Your task to perform on an android device: Show the shopping cart on newegg. Add razer nari to the cart on newegg, then select checkout. Image 0: 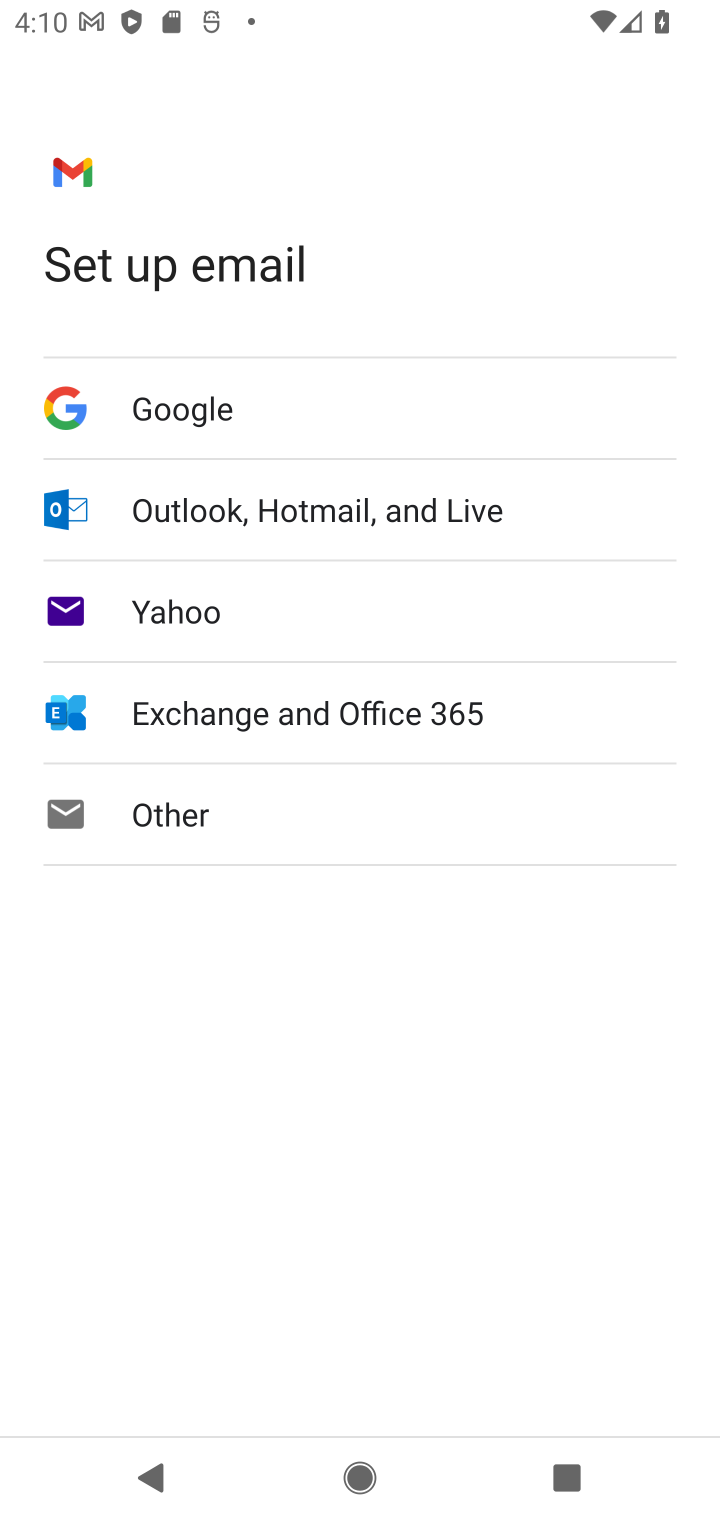
Step 0: press home button
Your task to perform on an android device: Show the shopping cart on newegg. Add razer nari to the cart on newegg, then select checkout. Image 1: 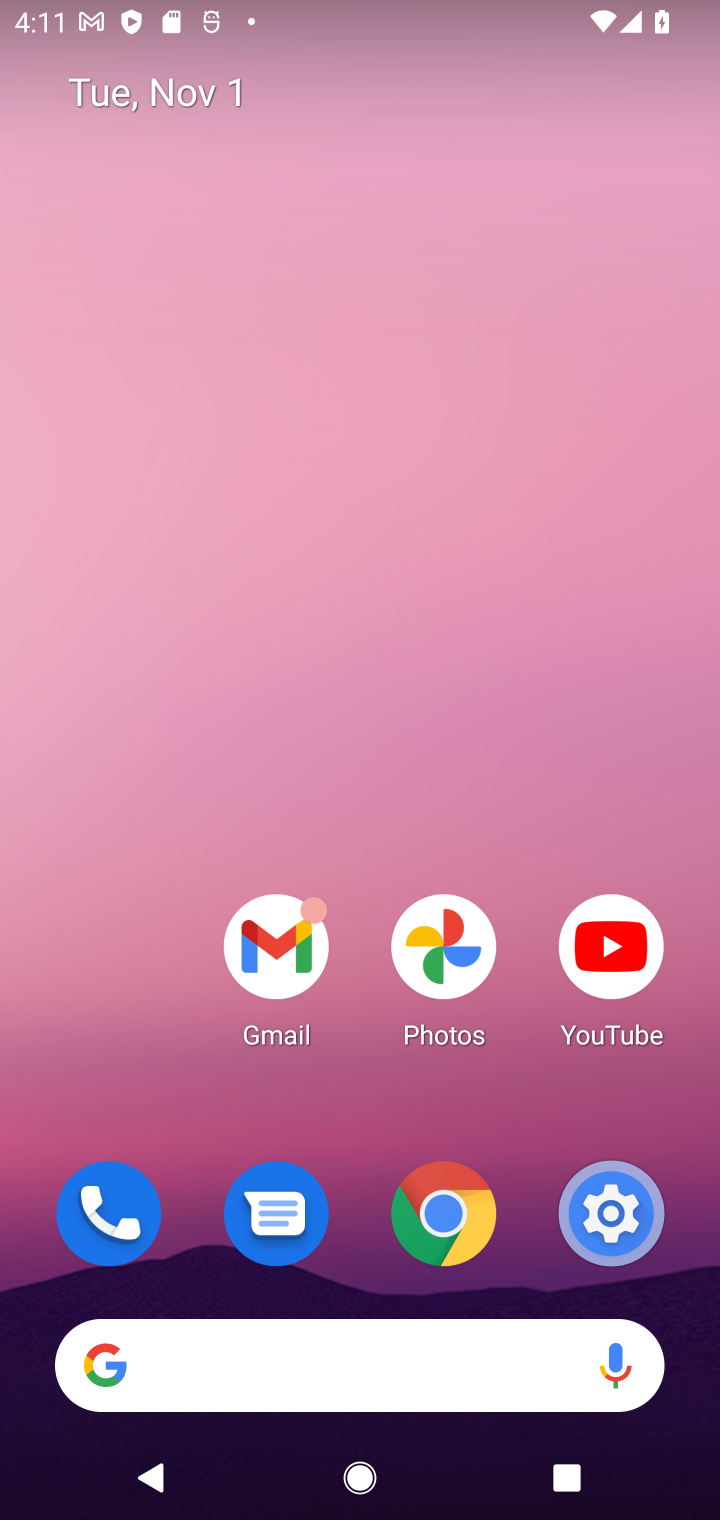
Step 1: click (343, 1361)
Your task to perform on an android device: Show the shopping cart on newegg. Add razer nari to the cart on newegg, then select checkout. Image 2: 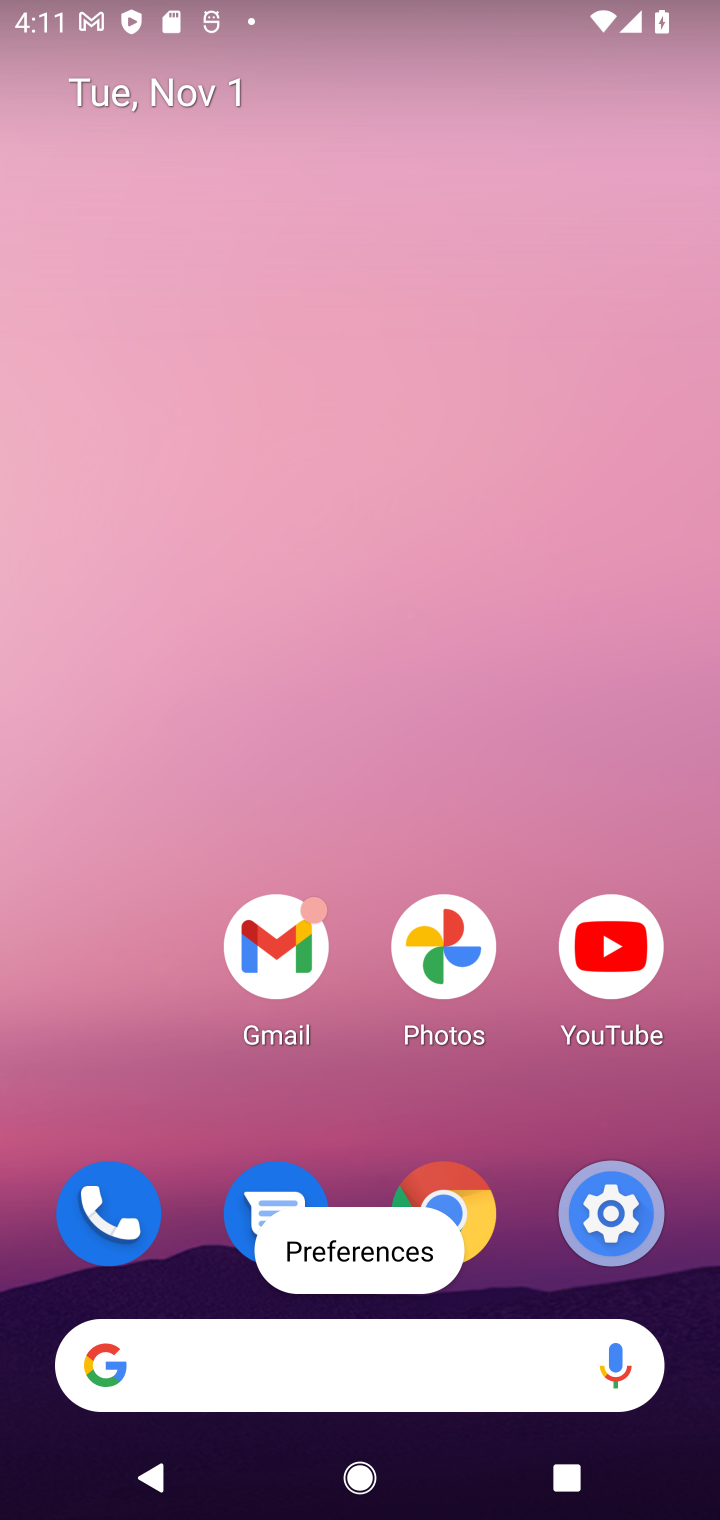
Step 2: type "newegg"
Your task to perform on an android device: Show the shopping cart on newegg. Add razer nari to the cart on newegg, then select checkout. Image 3: 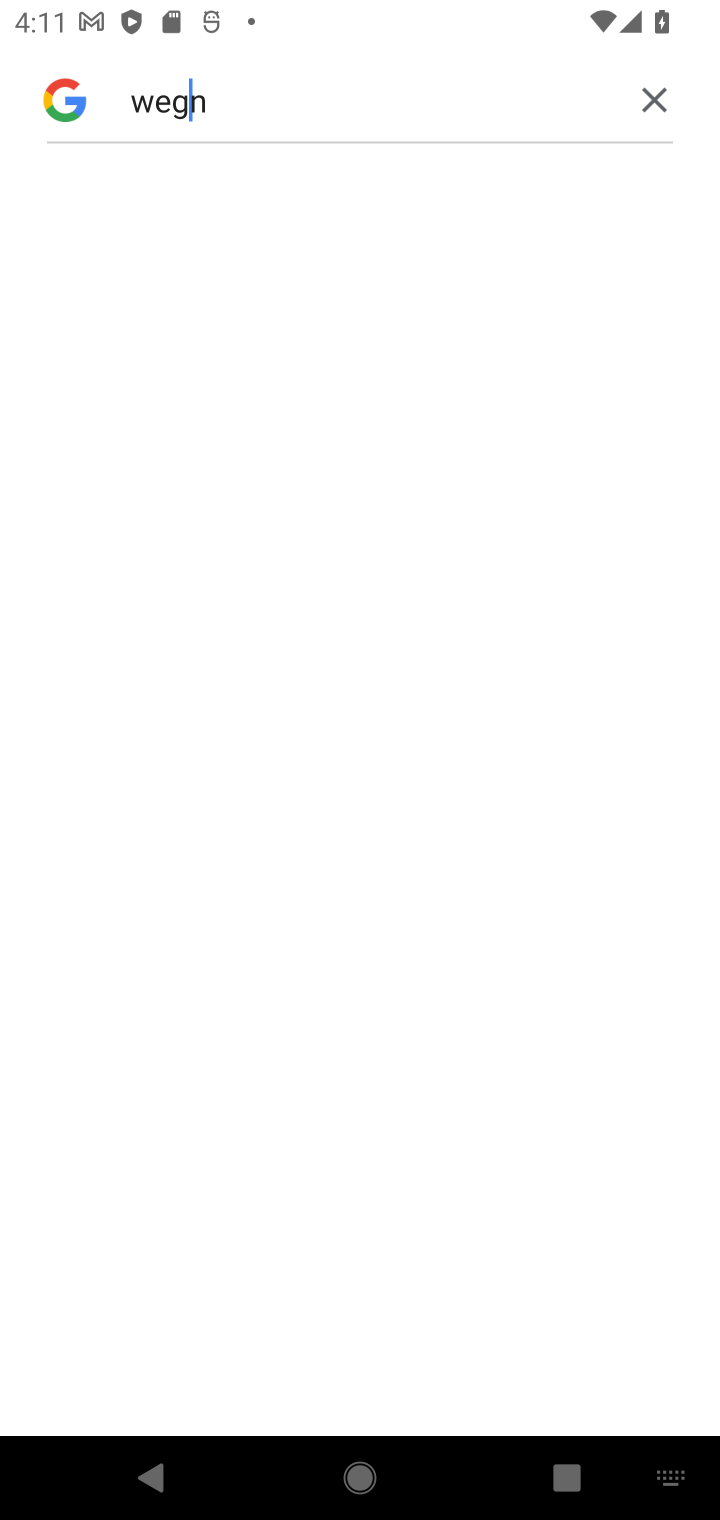
Step 3: type ""
Your task to perform on an android device: Show the shopping cart on newegg. Add razer nari to the cart on newegg, then select checkout. Image 4: 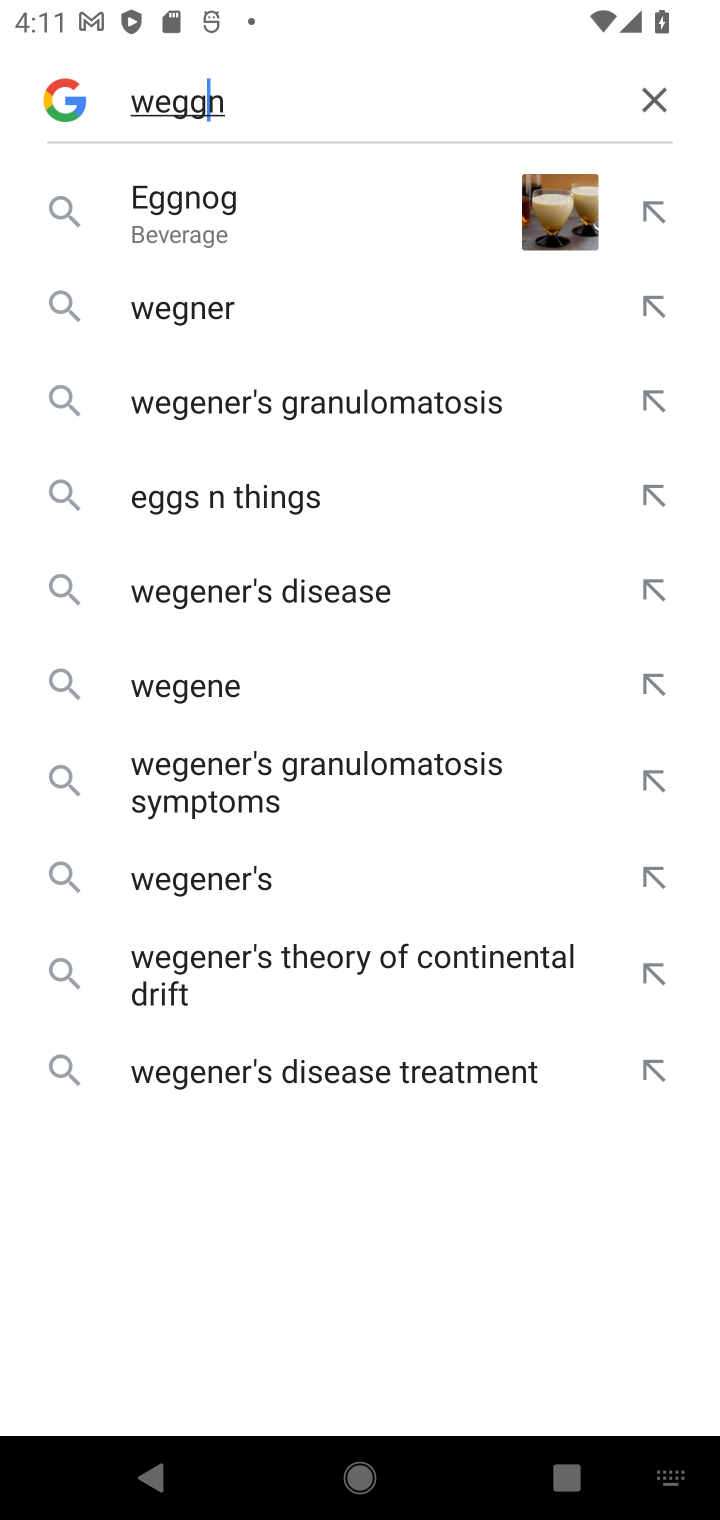
Step 4: click (659, 114)
Your task to perform on an android device: Show the shopping cart on newegg. Add razer nari to the cart on newegg, then select checkout. Image 5: 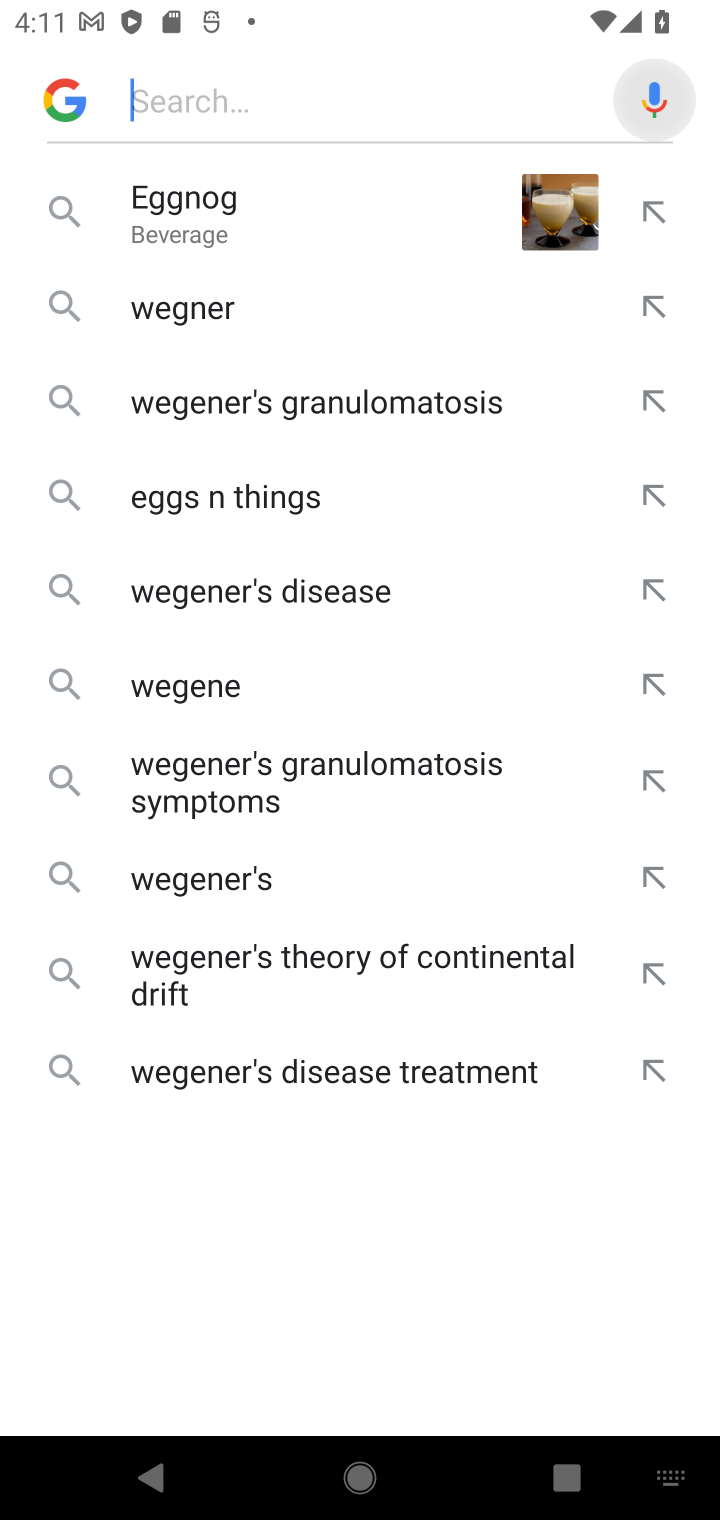
Step 5: click (657, 105)
Your task to perform on an android device: Show the shopping cart on newegg. Add razer nari to the cart on newegg, then select checkout. Image 6: 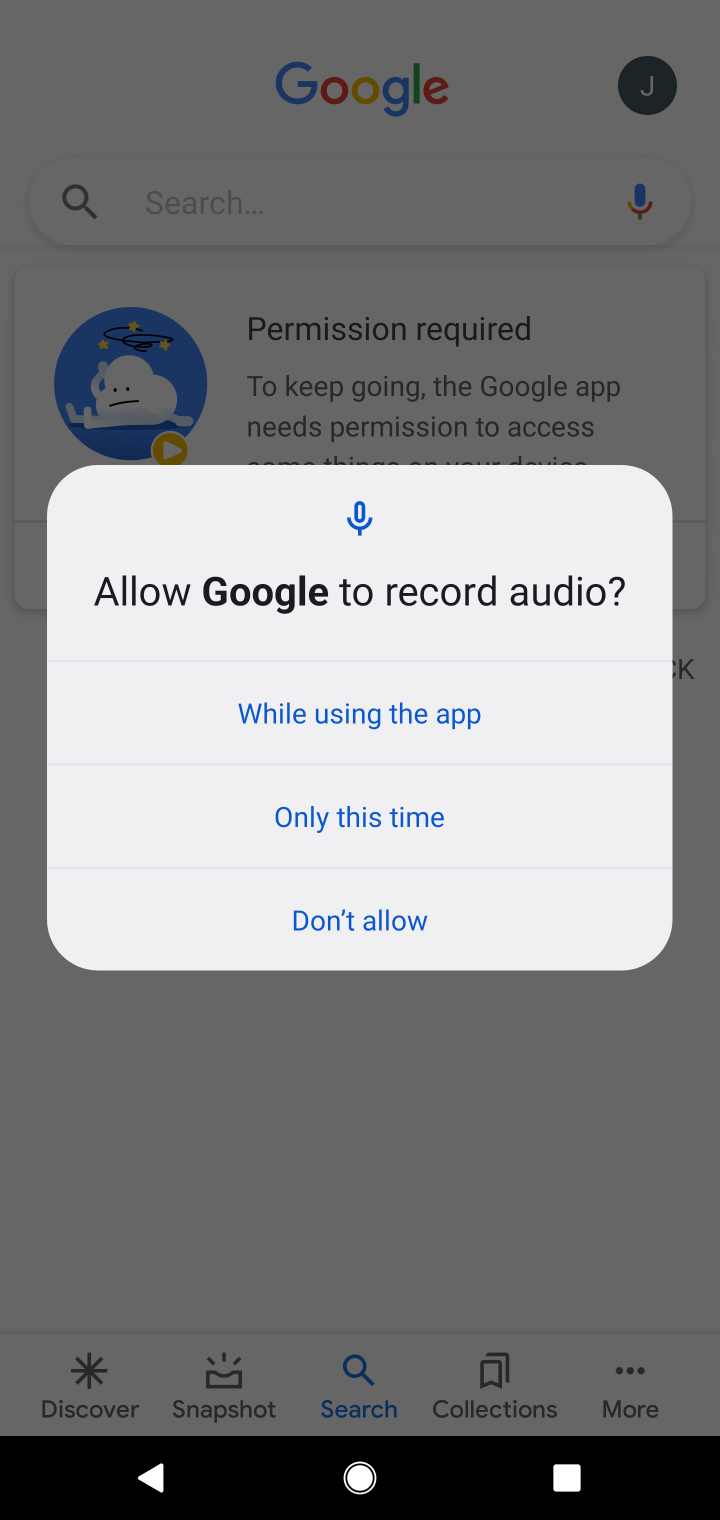
Step 6: click (435, 926)
Your task to perform on an android device: Show the shopping cart on newegg. Add razer nari to the cart on newegg, then select checkout. Image 7: 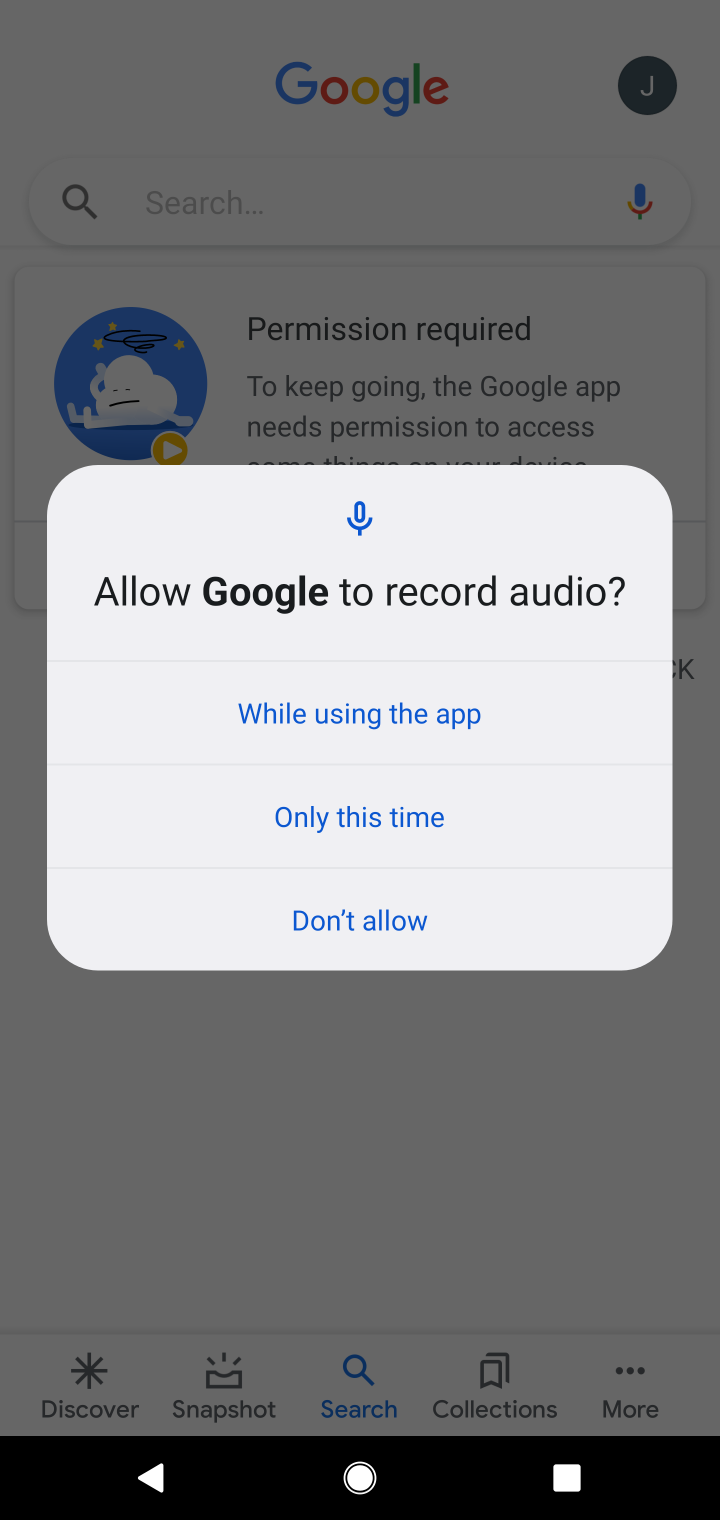
Step 7: click (417, 926)
Your task to perform on an android device: Show the shopping cart on newegg. Add razer nari to the cart on newegg, then select checkout. Image 8: 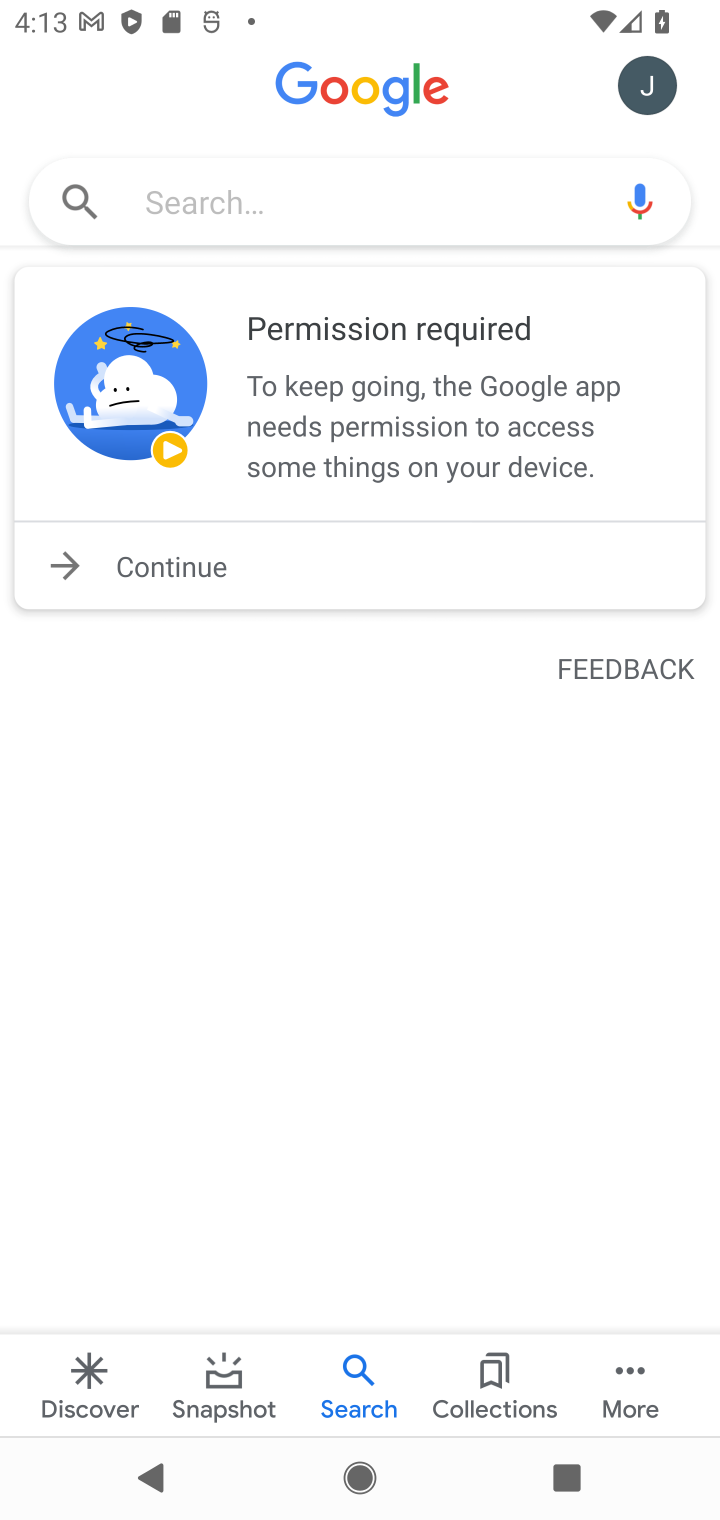
Step 8: task complete